Your task to perform on an android device: install app "Microsoft Authenticator" Image 0: 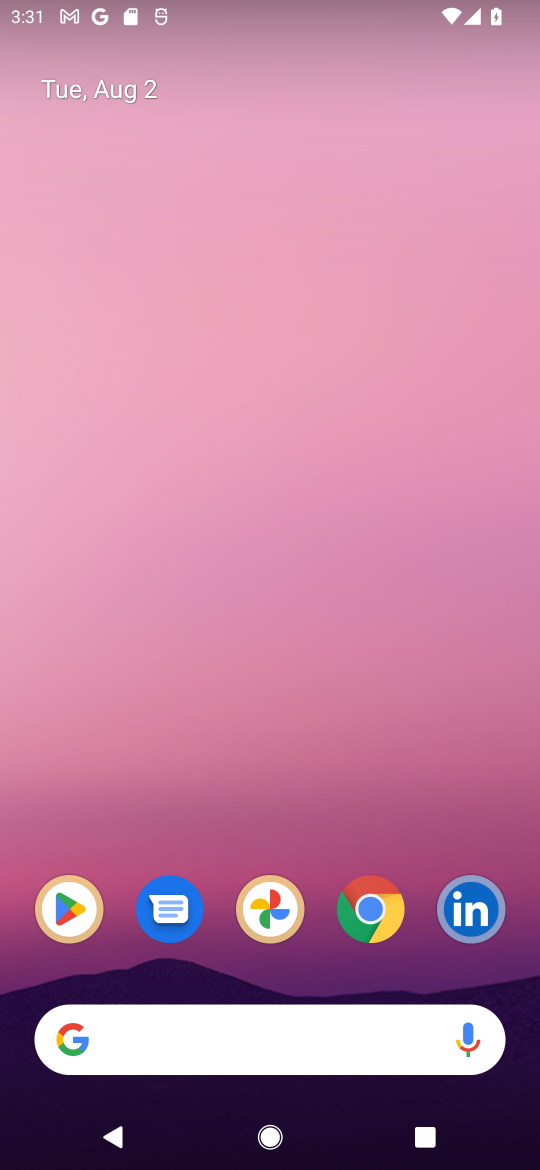
Step 0: drag from (234, 931) to (291, 128)
Your task to perform on an android device: install app "Microsoft Authenticator" Image 1: 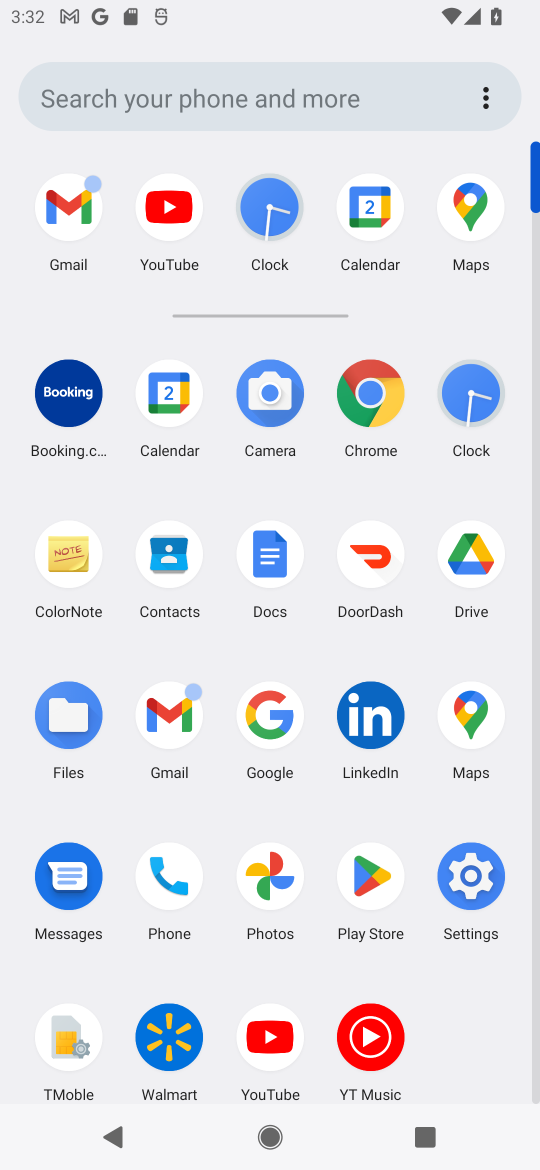
Step 1: click (358, 877)
Your task to perform on an android device: install app "Microsoft Authenticator" Image 2: 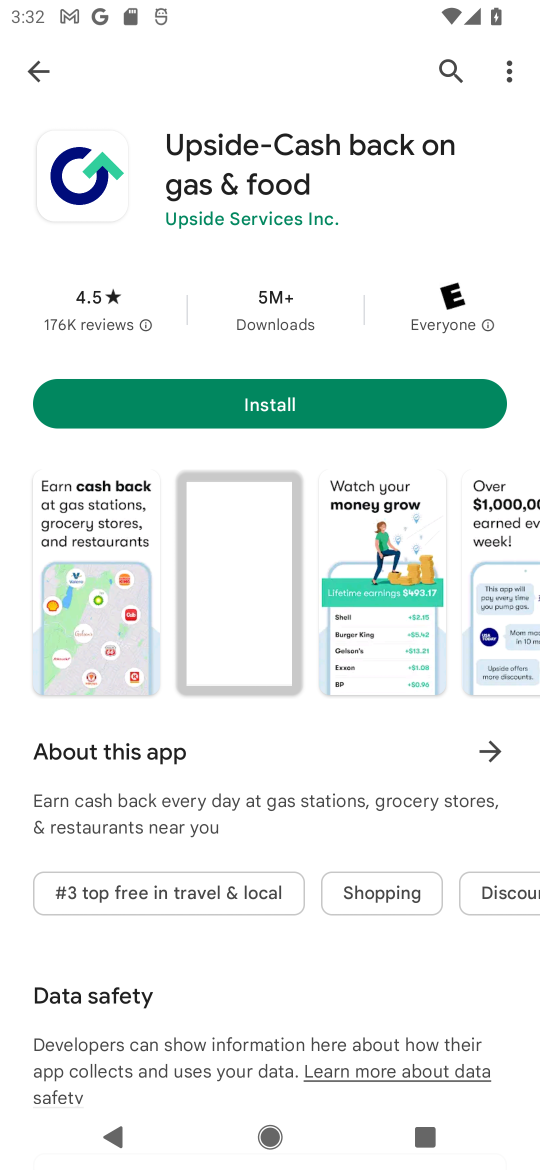
Step 2: drag from (260, 988) to (364, 507)
Your task to perform on an android device: install app "Microsoft Authenticator" Image 3: 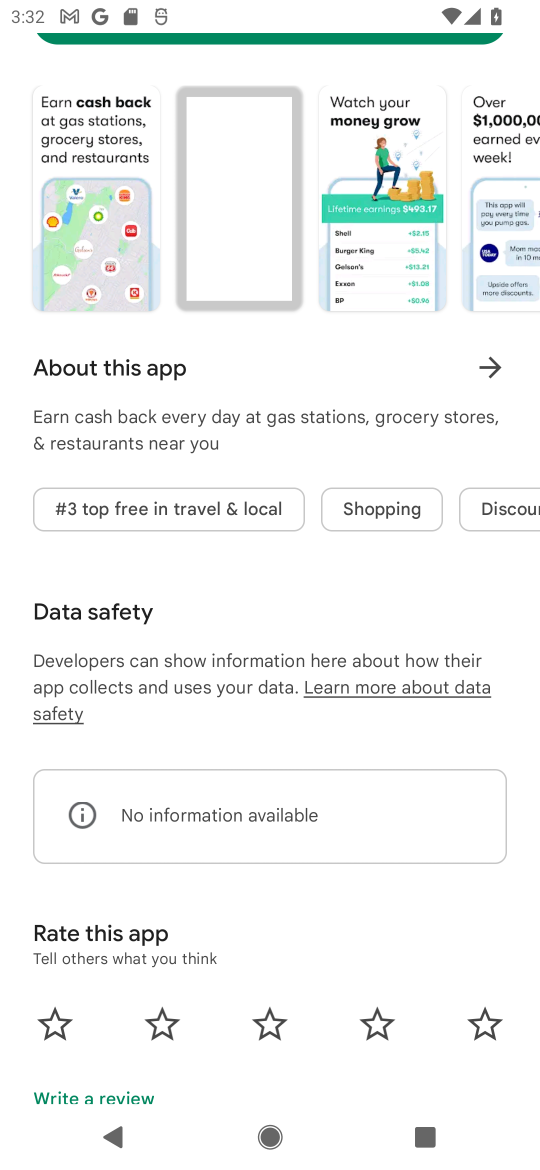
Step 3: drag from (374, 501) to (368, 1162)
Your task to perform on an android device: install app "Microsoft Authenticator" Image 4: 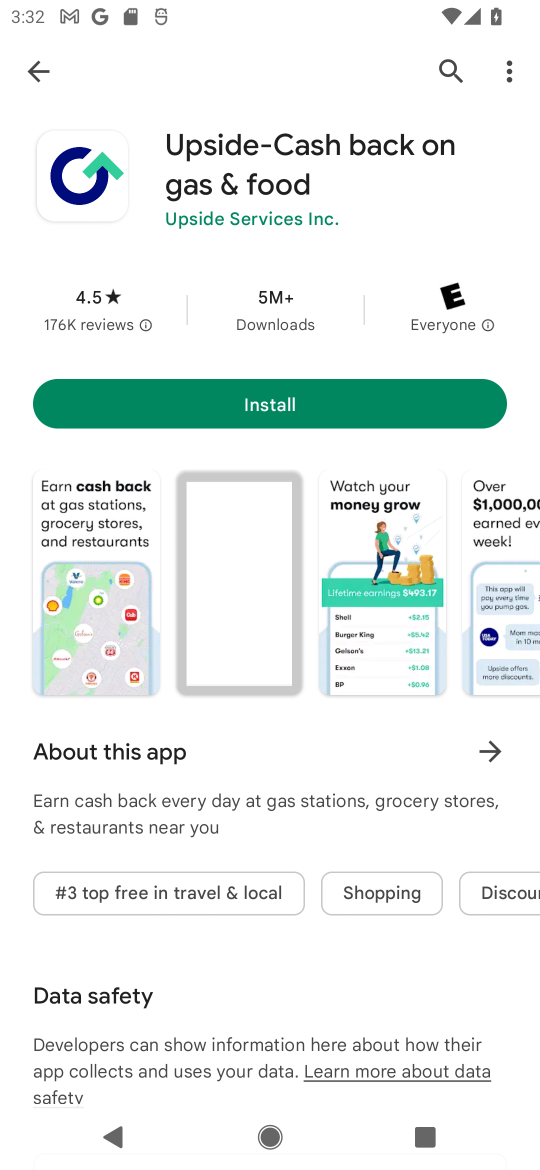
Step 4: drag from (277, 440) to (343, 988)
Your task to perform on an android device: install app "Microsoft Authenticator" Image 5: 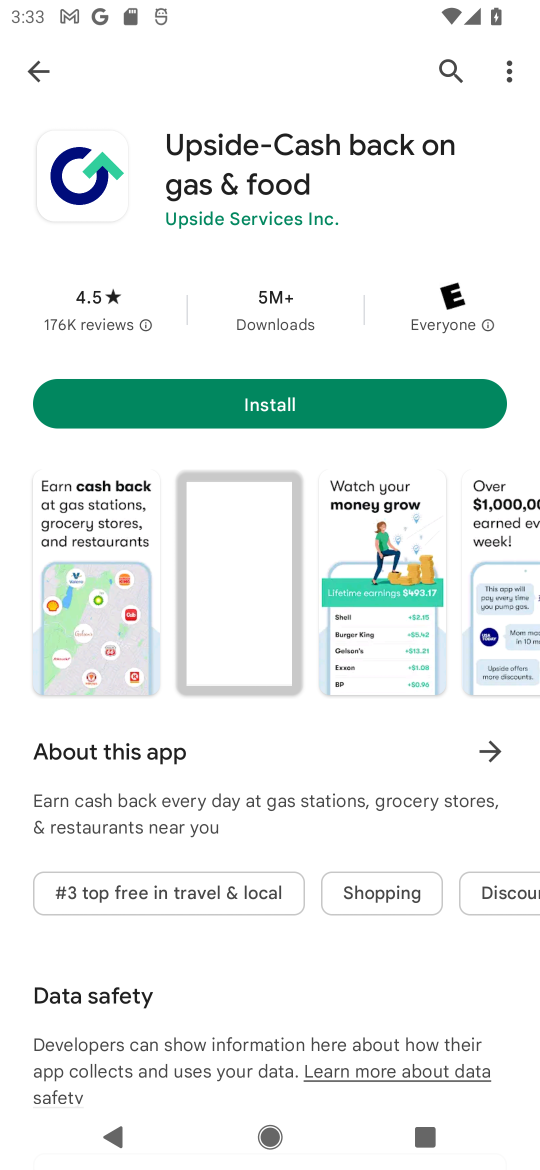
Step 5: click (442, 64)
Your task to perform on an android device: install app "Microsoft Authenticator" Image 6: 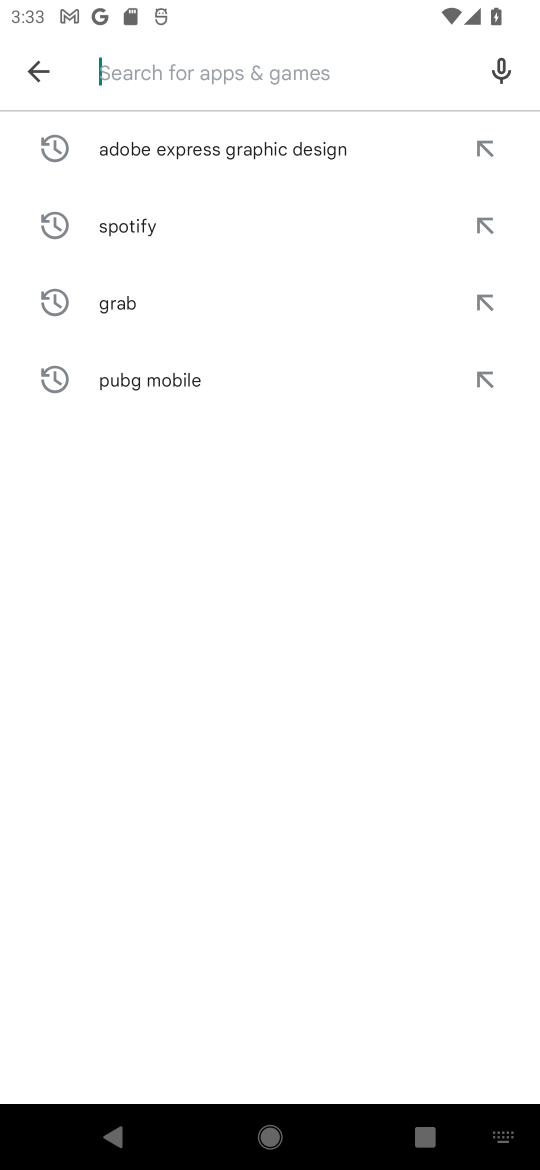
Step 6: type "Microsoft Authenticator"
Your task to perform on an android device: install app "Microsoft Authenticator" Image 7: 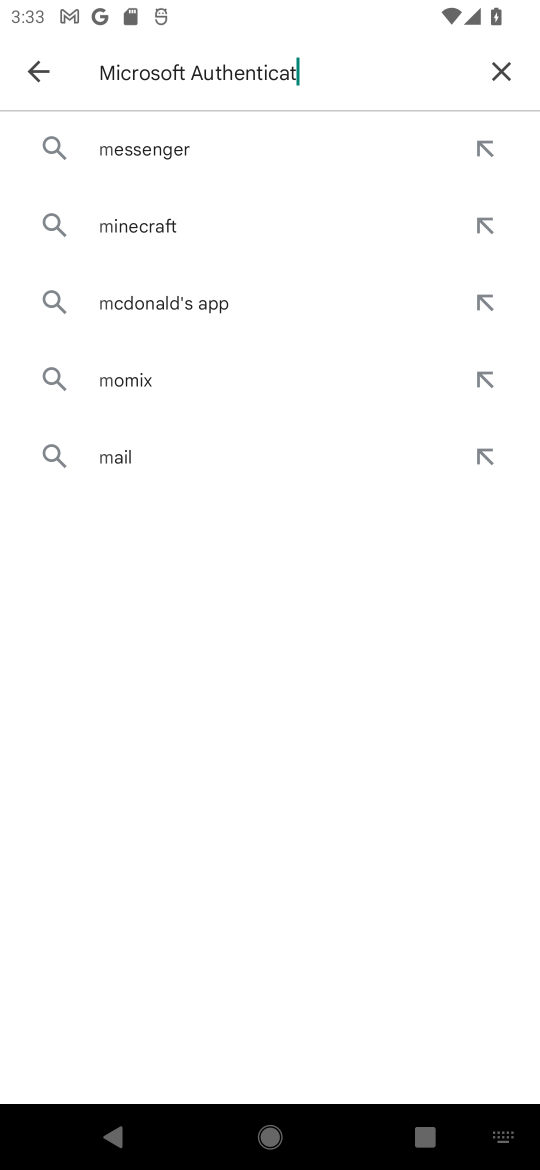
Step 7: type ""
Your task to perform on an android device: install app "Microsoft Authenticator" Image 8: 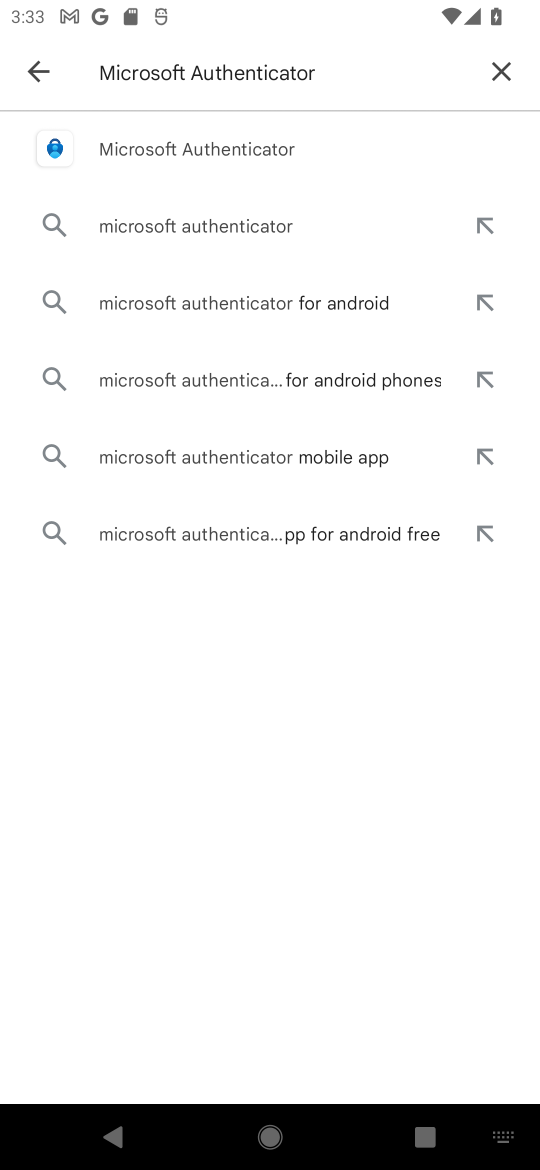
Step 8: click (273, 147)
Your task to perform on an android device: install app "Microsoft Authenticator" Image 9: 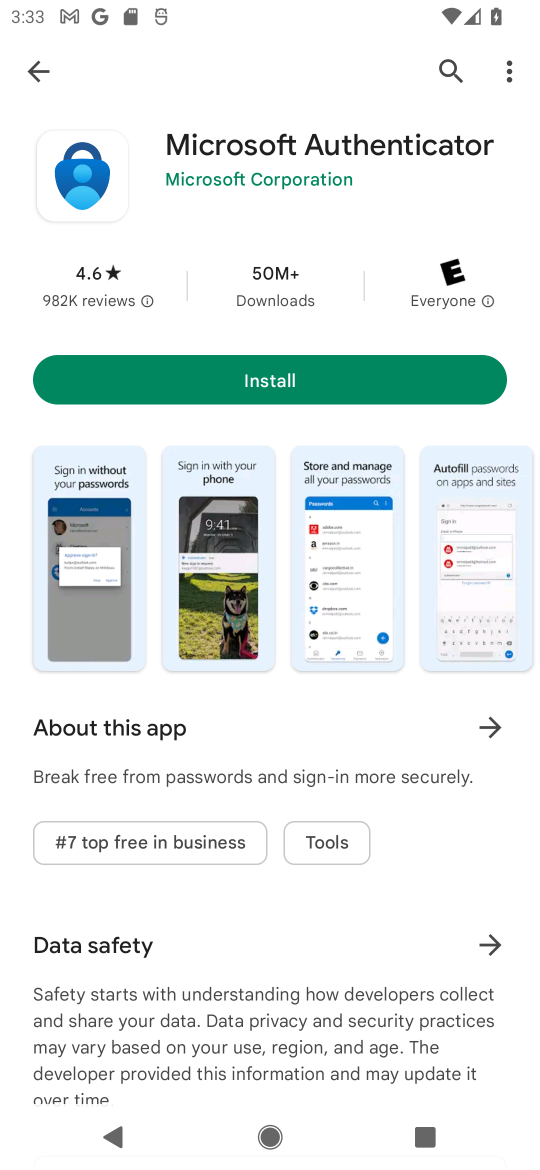
Step 9: click (270, 410)
Your task to perform on an android device: install app "Microsoft Authenticator" Image 10: 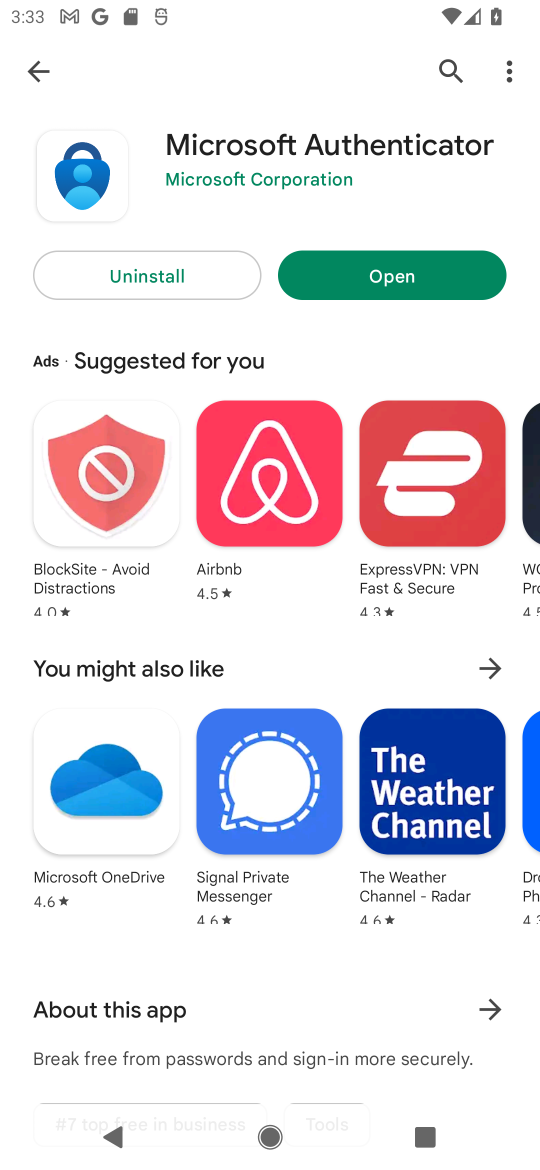
Step 10: drag from (315, 421) to (352, 1067)
Your task to perform on an android device: install app "Microsoft Authenticator" Image 11: 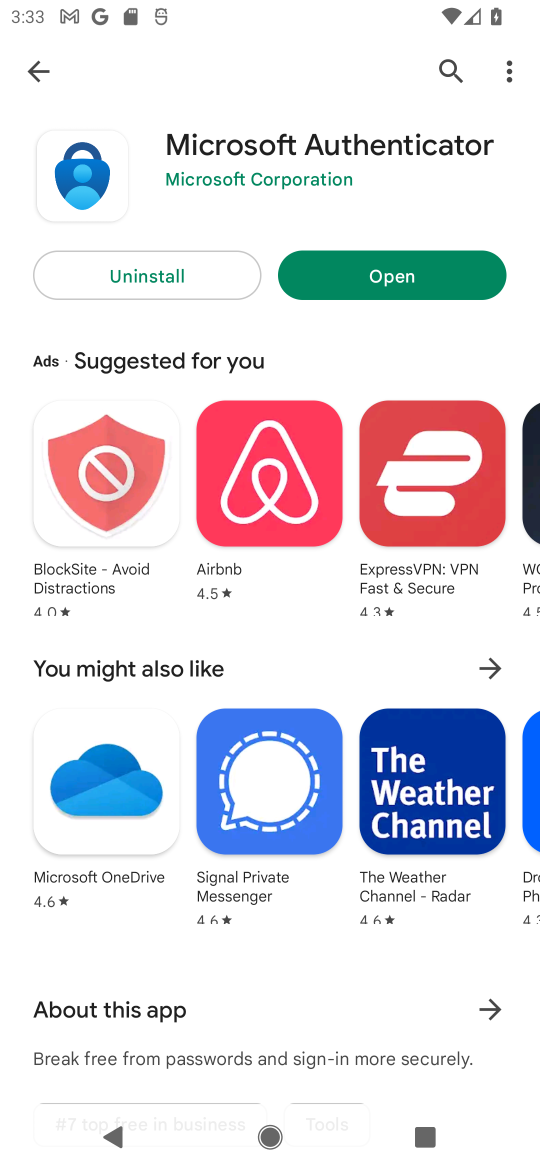
Step 11: drag from (304, 386) to (539, 1131)
Your task to perform on an android device: install app "Microsoft Authenticator" Image 12: 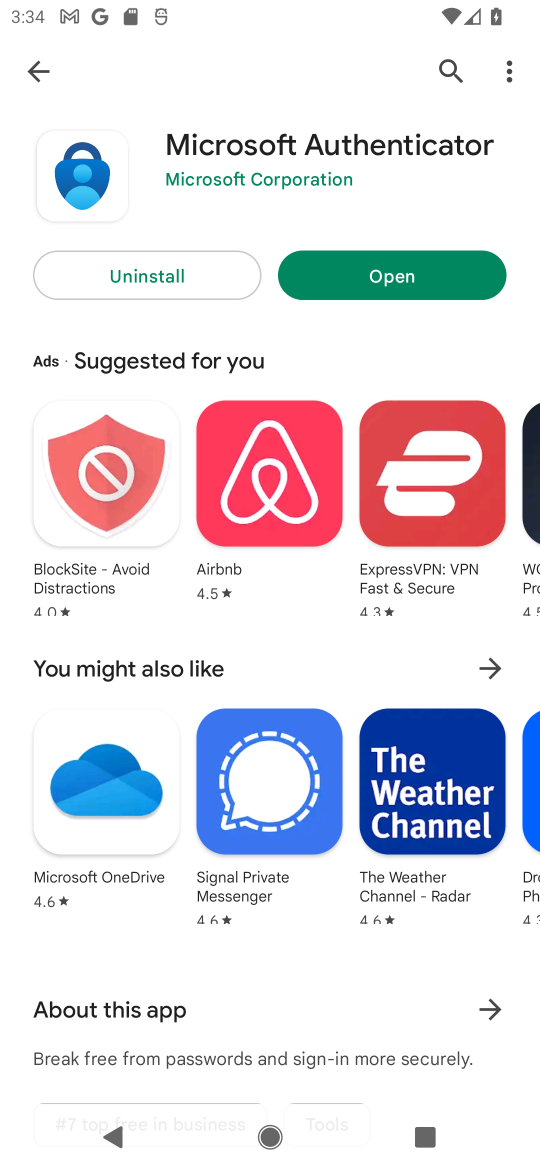
Step 12: click (341, 276)
Your task to perform on an android device: install app "Microsoft Authenticator" Image 13: 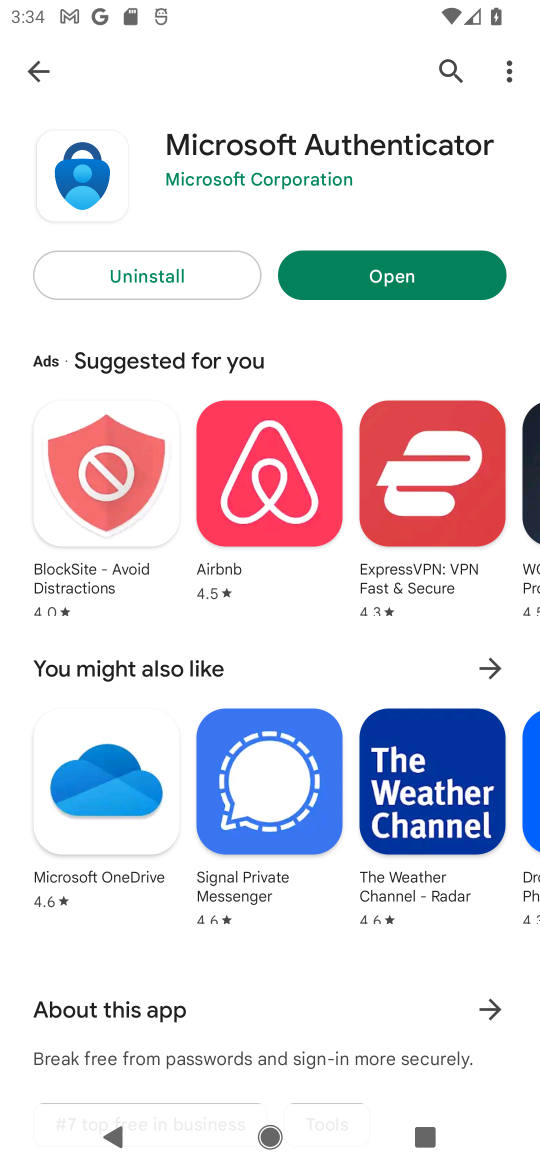
Step 13: task complete